Your task to perform on an android device: search for starred emails in the gmail app Image 0: 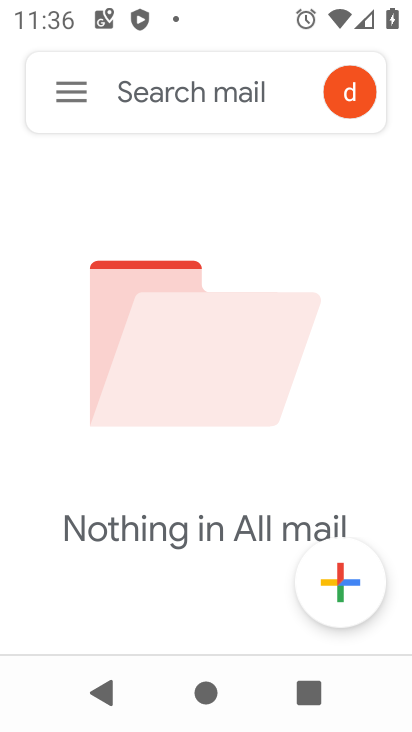
Step 0: press home button
Your task to perform on an android device: search for starred emails in the gmail app Image 1: 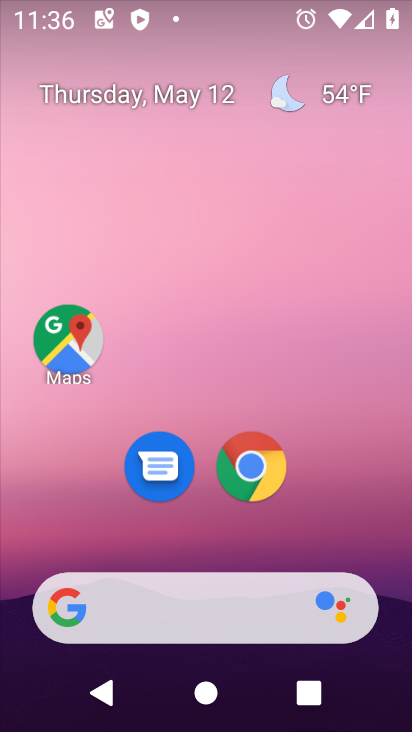
Step 1: drag from (335, 521) to (371, 193)
Your task to perform on an android device: search for starred emails in the gmail app Image 2: 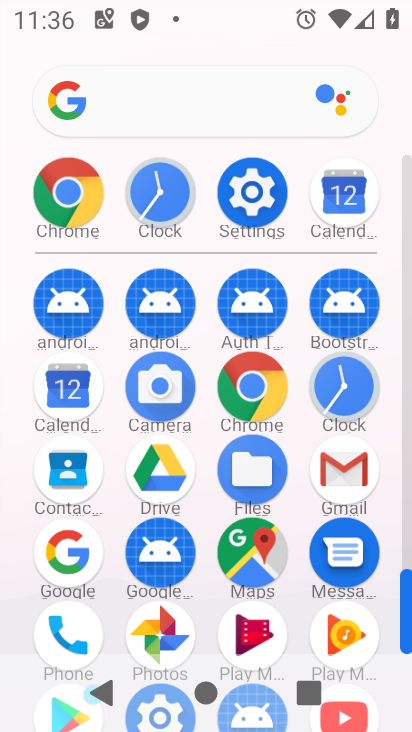
Step 2: click (357, 473)
Your task to perform on an android device: search for starred emails in the gmail app Image 3: 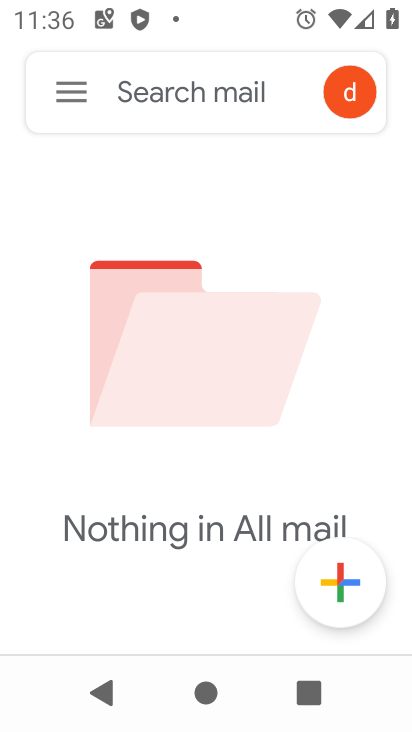
Step 3: click (78, 107)
Your task to perform on an android device: search for starred emails in the gmail app Image 4: 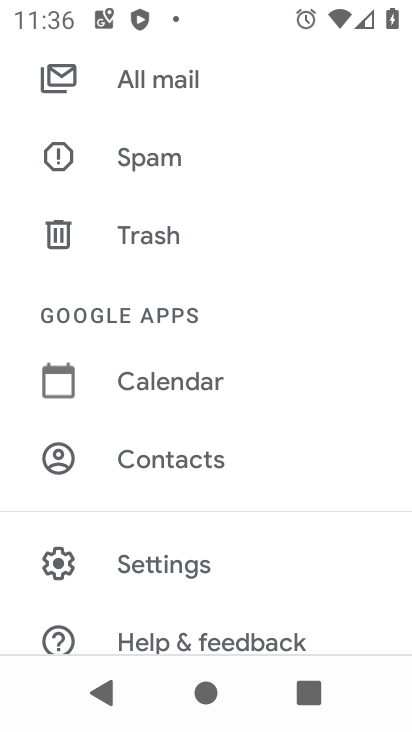
Step 4: drag from (285, 141) to (285, 543)
Your task to perform on an android device: search for starred emails in the gmail app Image 5: 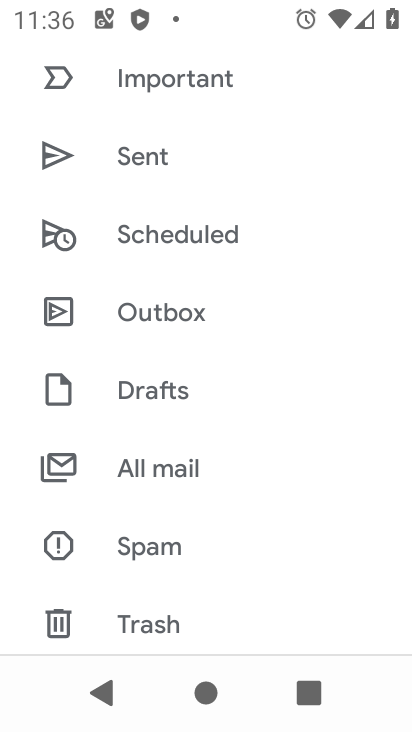
Step 5: drag from (242, 166) to (266, 504)
Your task to perform on an android device: search for starred emails in the gmail app Image 6: 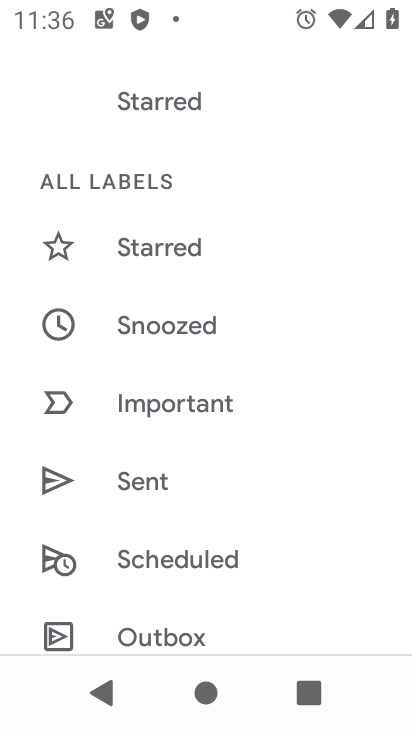
Step 6: click (214, 242)
Your task to perform on an android device: search for starred emails in the gmail app Image 7: 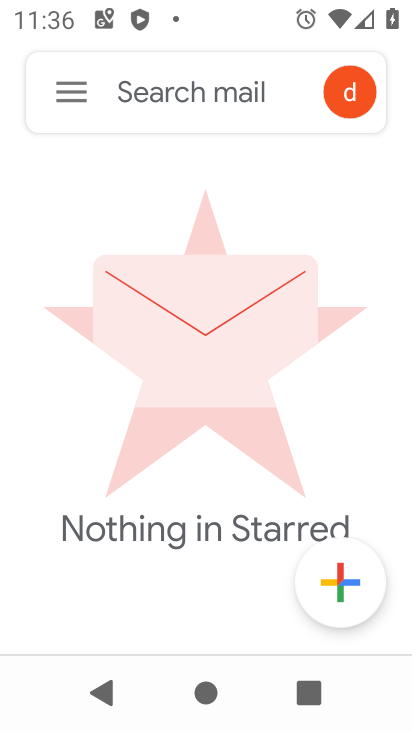
Step 7: task complete